Your task to perform on an android device: refresh tabs in the chrome app Image 0: 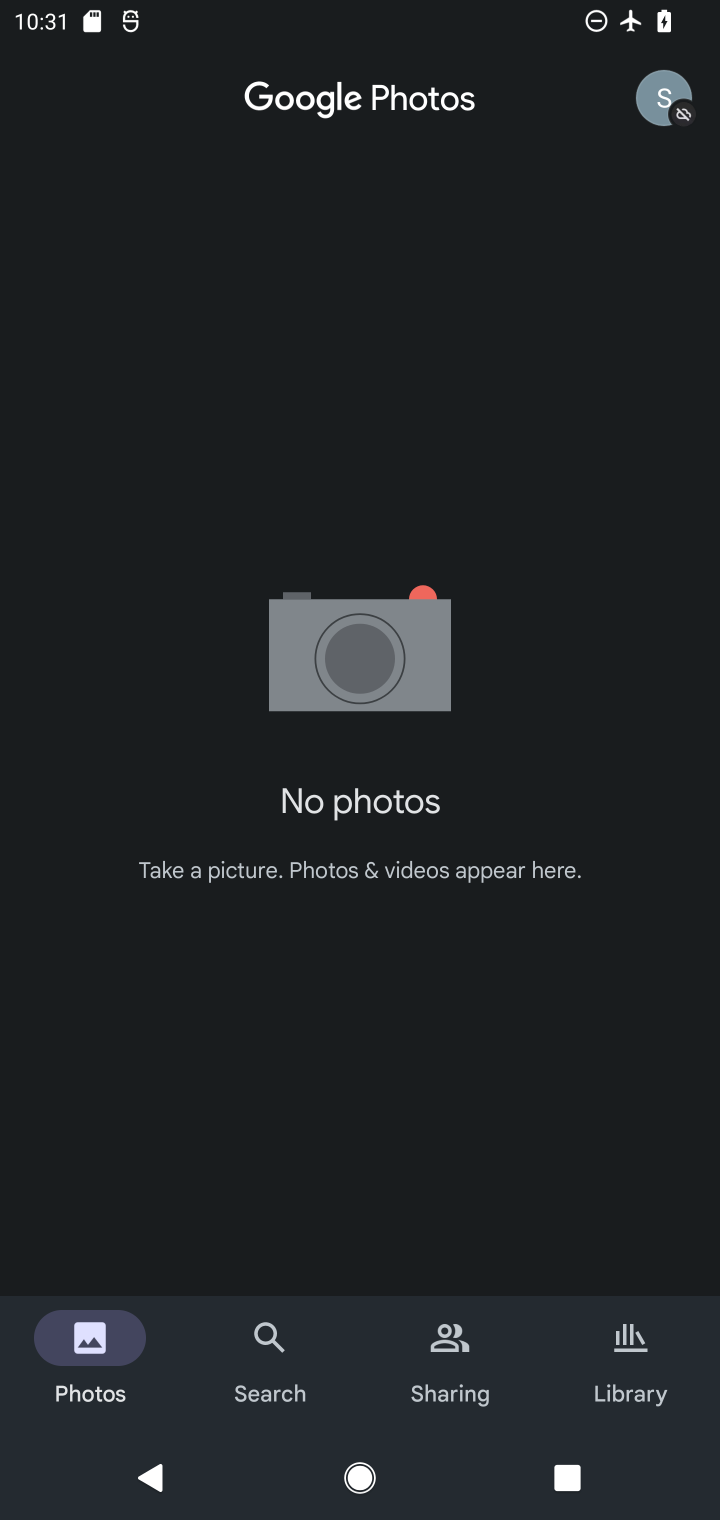
Step 0: press home button
Your task to perform on an android device: refresh tabs in the chrome app Image 1: 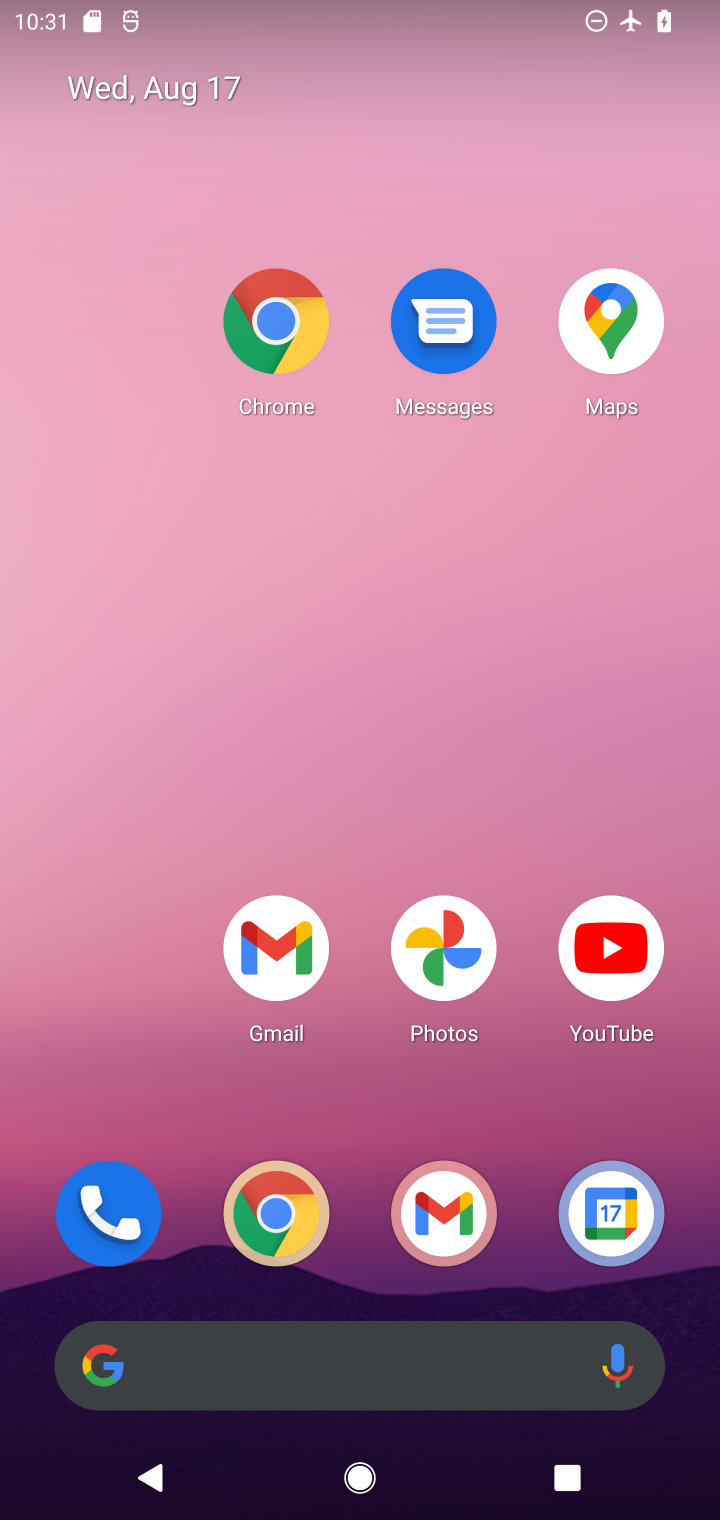
Step 1: click (372, 1297)
Your task to perform on an android device: refresh tabs in the chrome app Image 2: 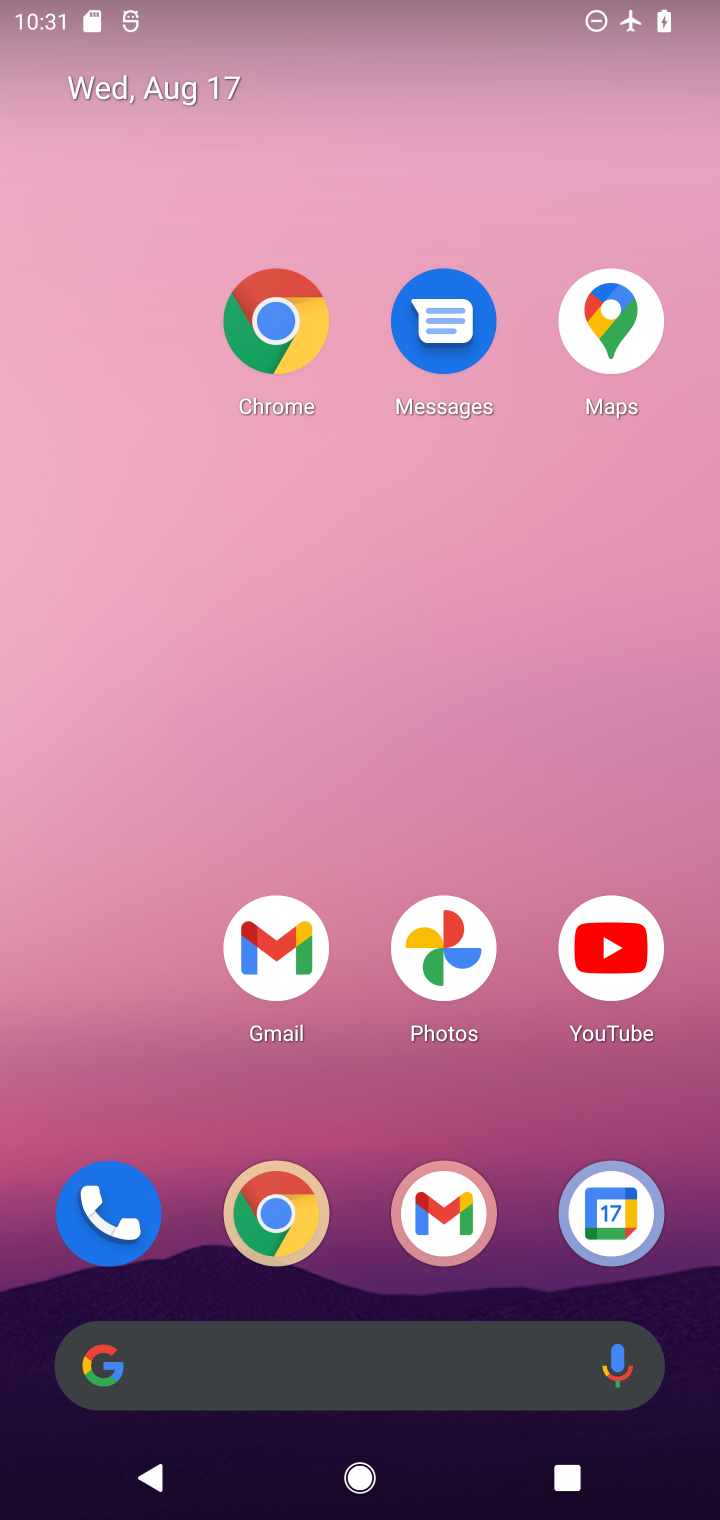
Step 2: click (287, 1257)
Your task to perform on an android device: refresh tabs in the chrome app Image 3: 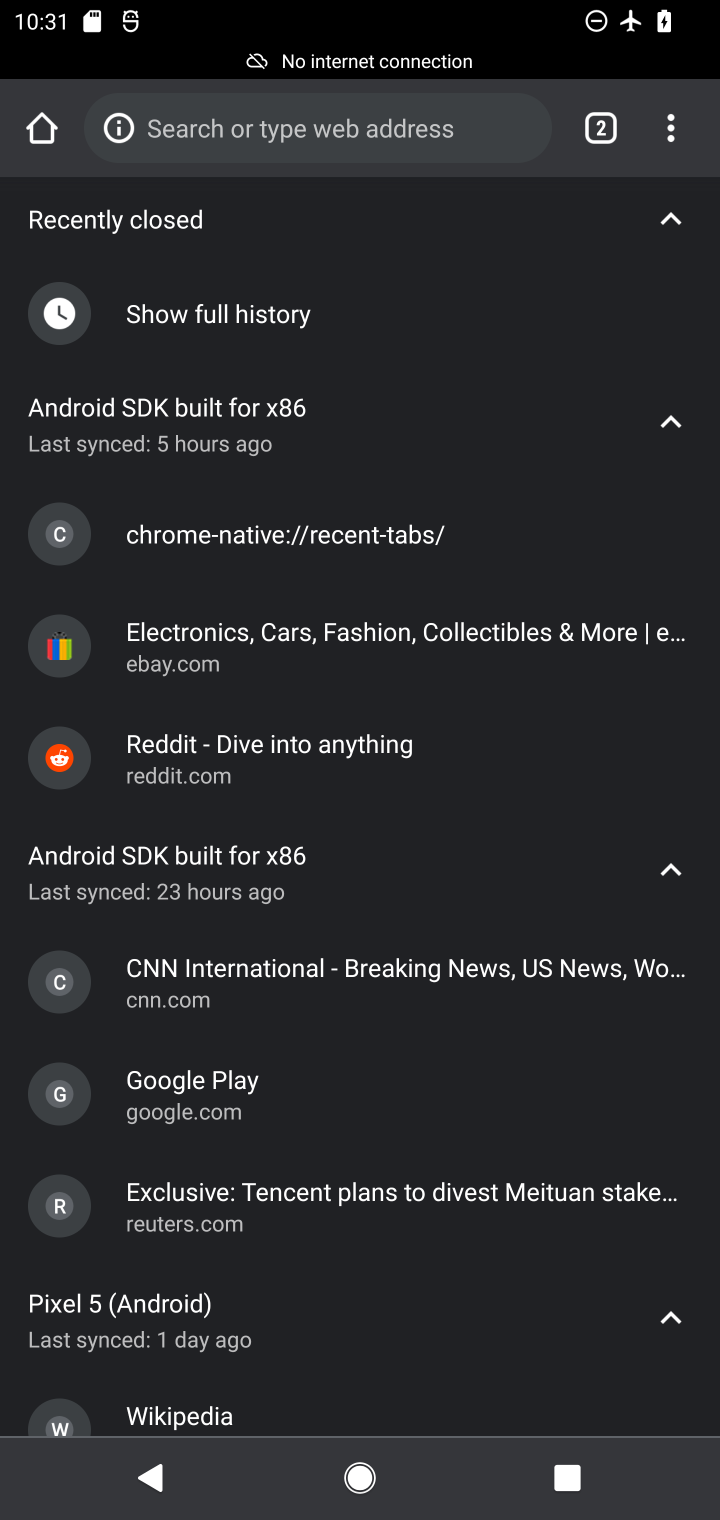
Step 3: click (692, 118)
Your task to perform on an android device: refresh tabs in the chrome app Image 4: 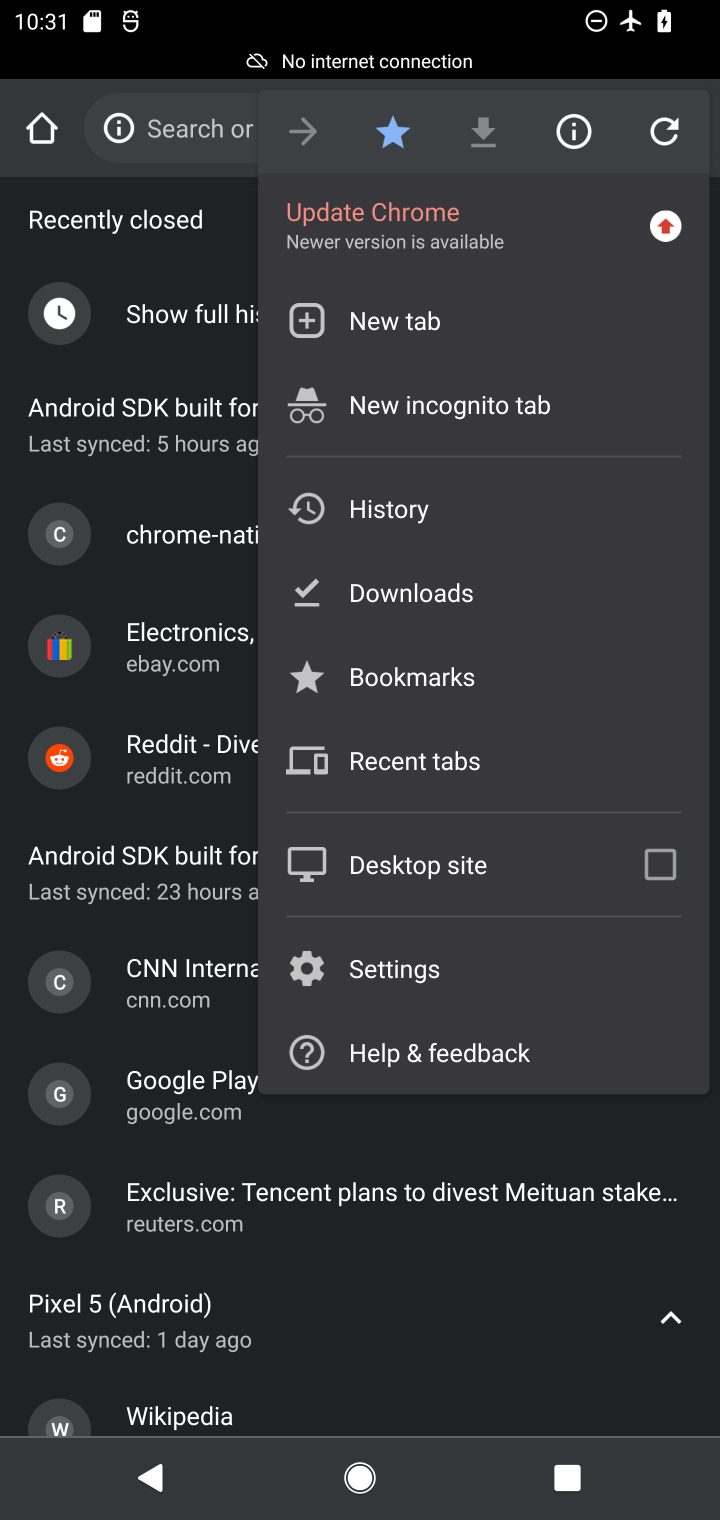
Step 4: click (654, 144)
Your task to perform on an android device: refresh tabs in the chrome app Image 5: 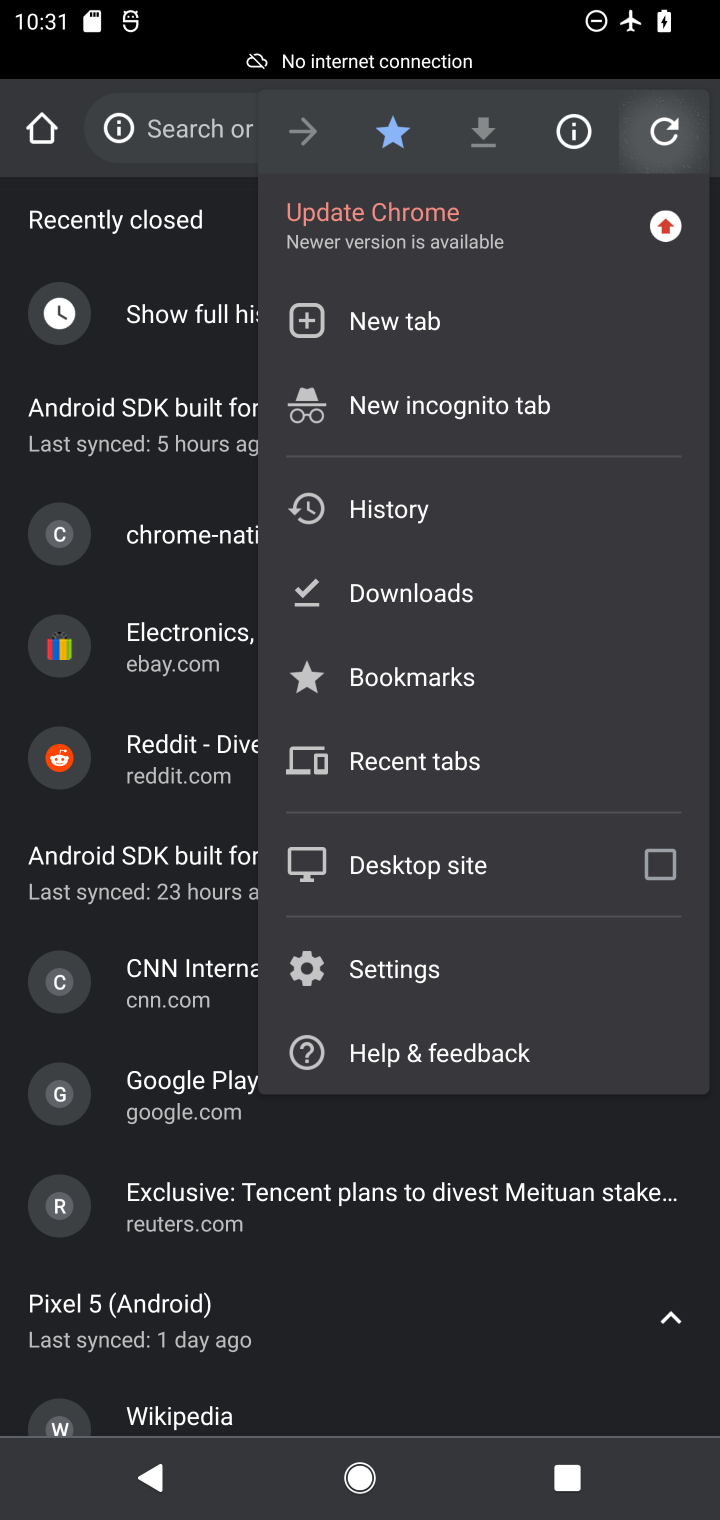
Step 5: task complete